Your task to perform on an android device: turn on the 24-hour format for clock Image 0: 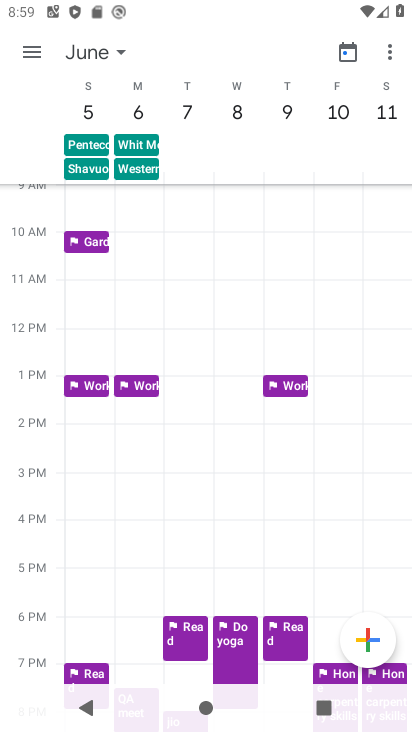
Step 0: press home button
Your task to perform on an android device: turn on the 24-hour format for clock Image 1: 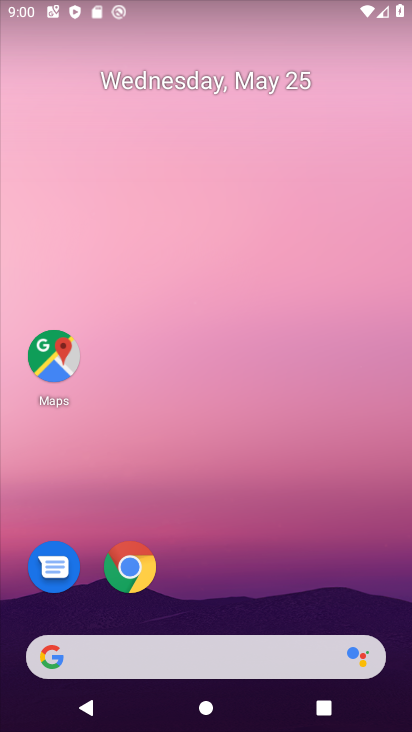
Step 1: drag from (234, 518) to (293, 70)
Your task to perform on an android device: turn on the 24-hour format for clock Image 2: 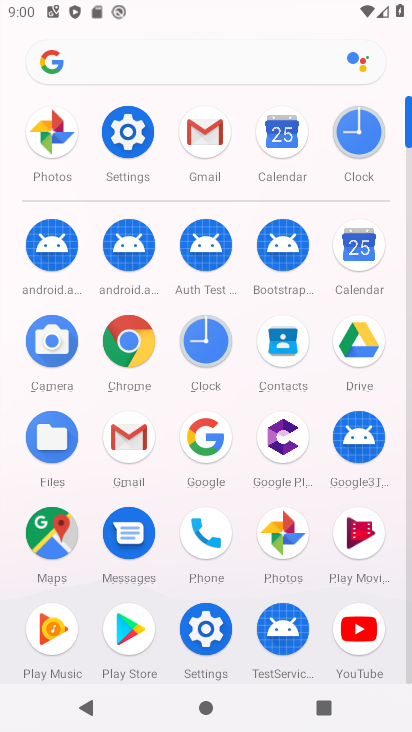
Step 2: click (342, 130)
Your task to perform on an android device: turn on the 24-hour format for clock Image 3: 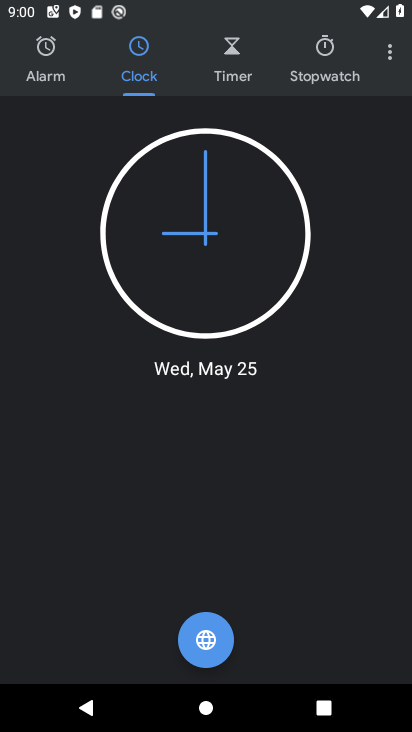
Step 3: click (385, 66)
Your task to perform on an android device: turn on the 24-hour format for clock Image 4: 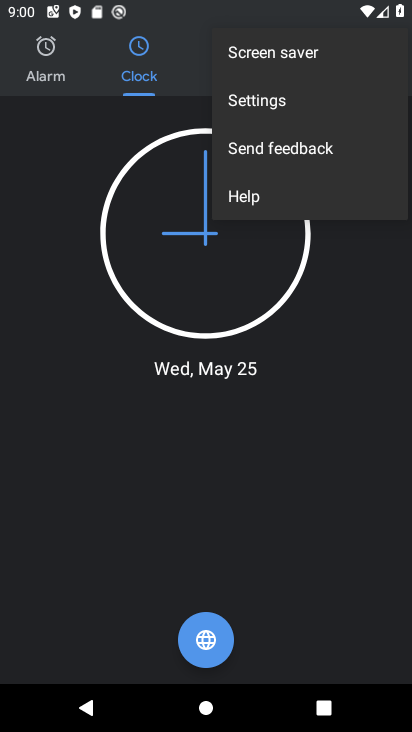
Step 4: click (340, 95)
Your task to perform on an android device: turn on the 24-hour format for clock Image 5: 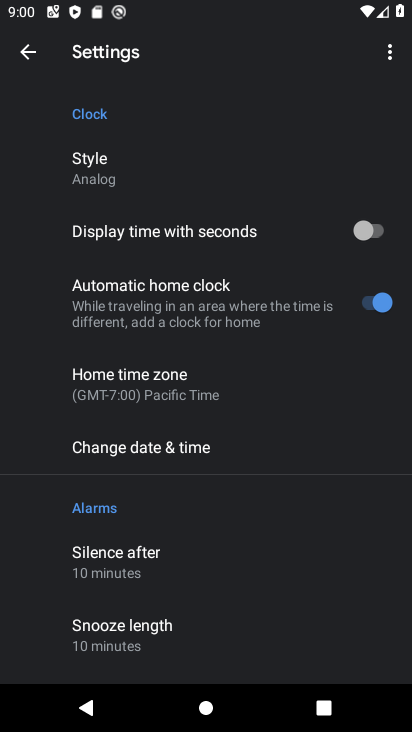
Step 5: click (246, 464)
Your task to perform on an android device: turn on the 24-hour format for clock Image 6: 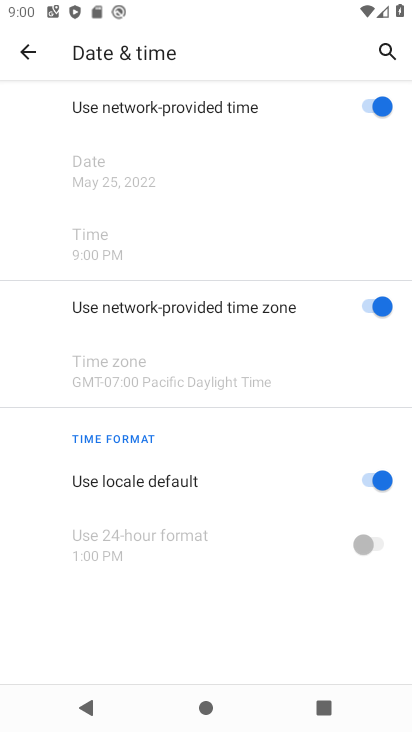
Step 6: click (381, 471)
Your task to perform on an android device: turn on the 24-hour format for clock Image 7: 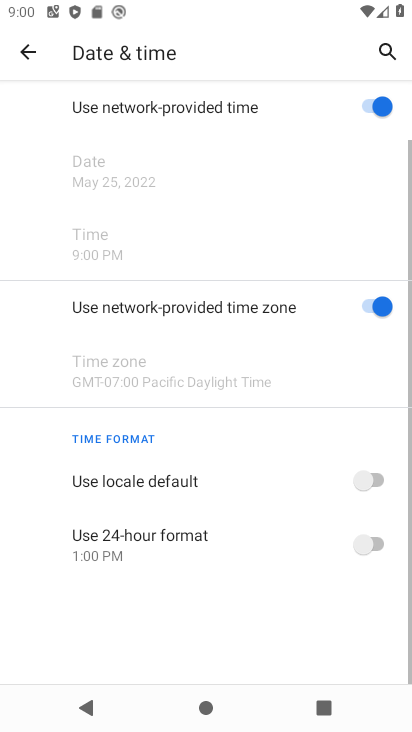
Step 7: click (371, 534)
Your task to perform on an android device: turn on the 24-hour format for clock Image 8: 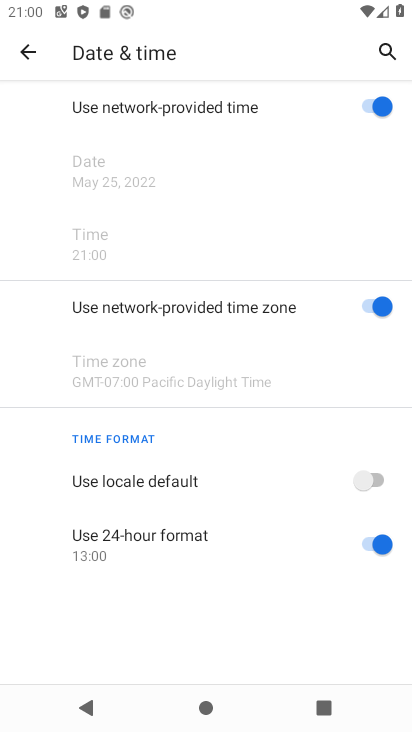
Step 8: task complete